Your task to perform on an android device: change the clock style Image 0: 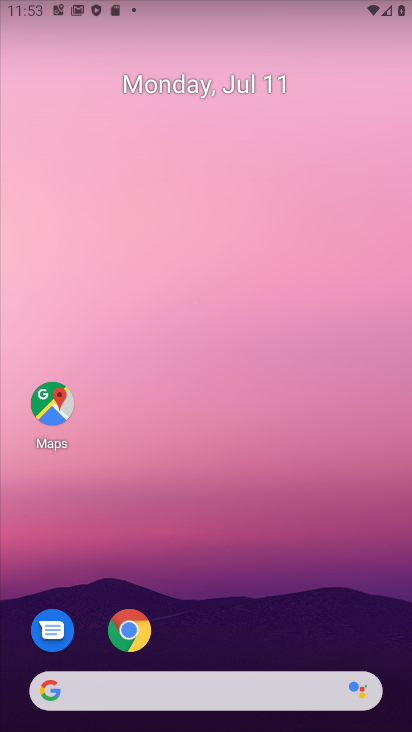
Step 0: drag from (224, 667) to (287, 347)
Your task to perform on an android device: change the clock style Image 1: 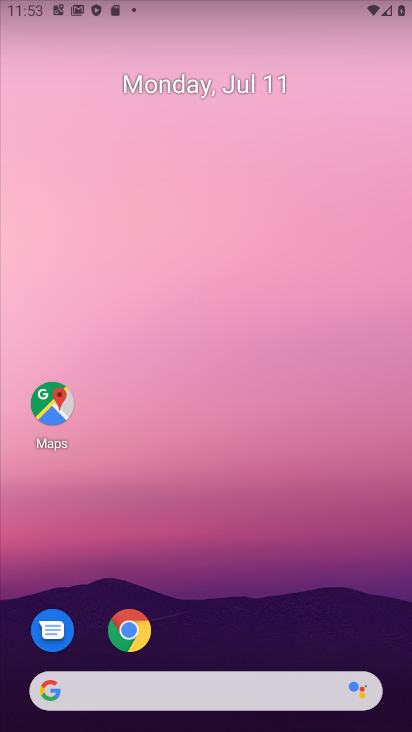
Step 1: drag from (190, 651) to (324, 197)
Your task to perform on an android device: change the clock style Image 2: 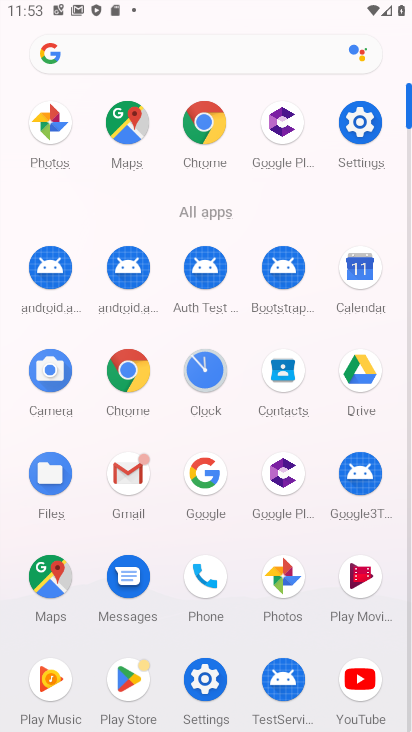
Step 2: click (205, 373)
Your task to perform on an android device: change the clock style Image 3: 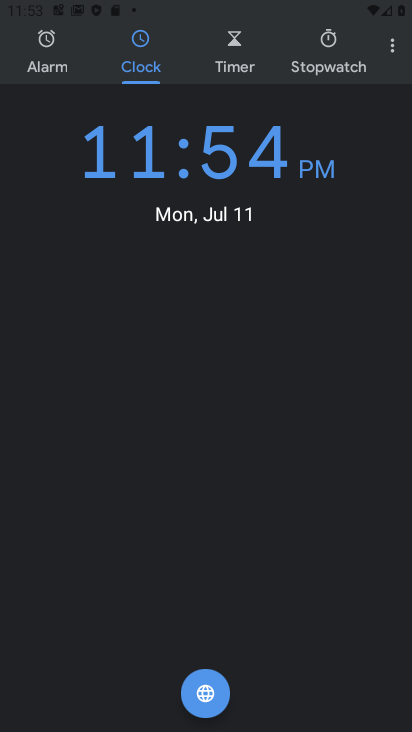
Step 3: click (392, 61)
Your task to perform on an android device: change the clock style Image 4: 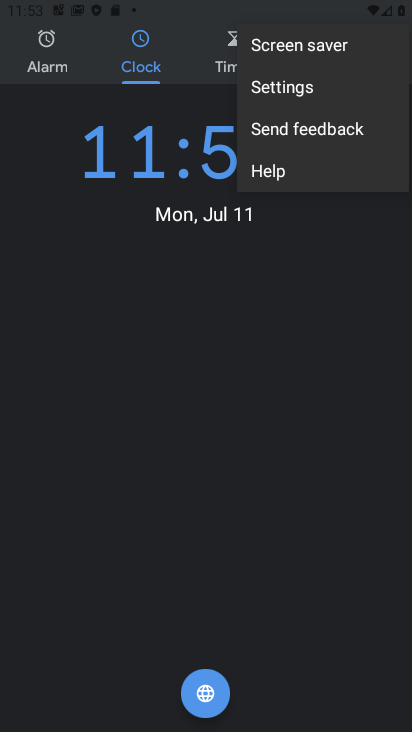
Step 4: click (349, 93)
Your task to perform on an android device: change the clock style Image 5: 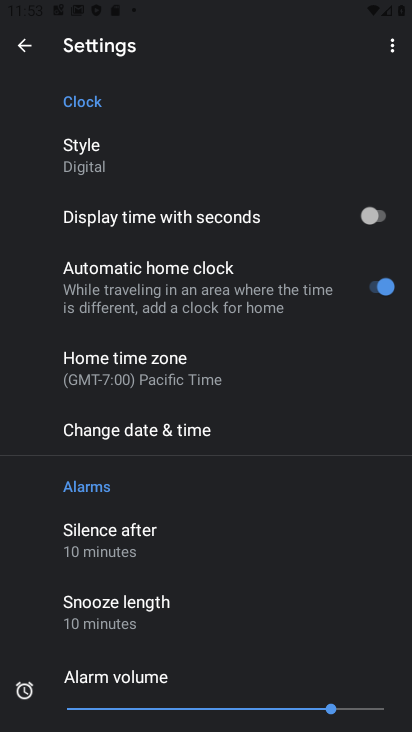
Step 5: click (104, 153)
Your task to perform on an android device: change the clock style Image 6: 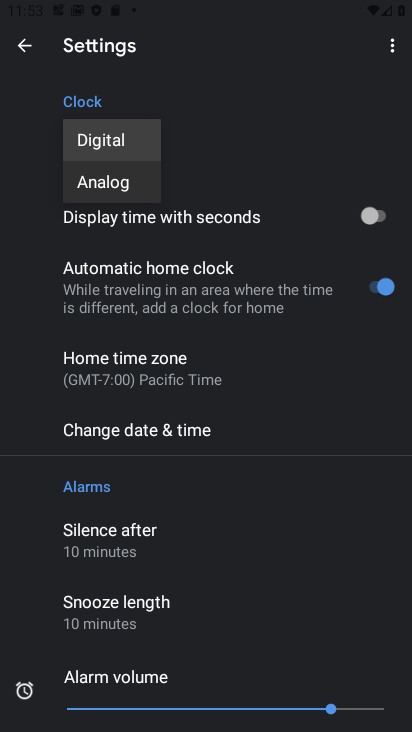
Step 6: click (137, 184)
Your task to perform on an android device: change the clock style Image 7: 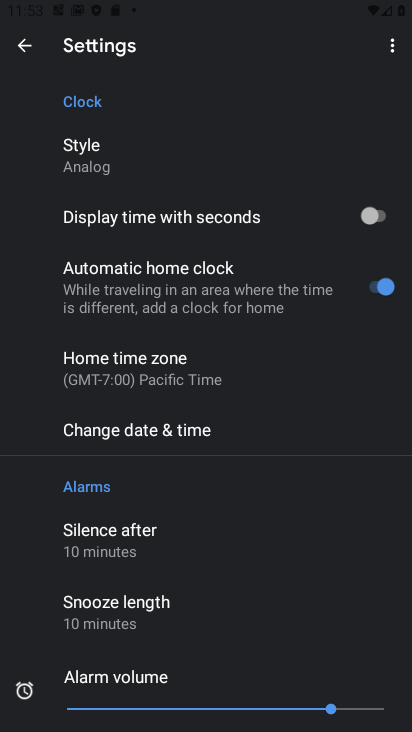
Step 7: task complete